Your task to perform on an android device: Check the weather Image 0: 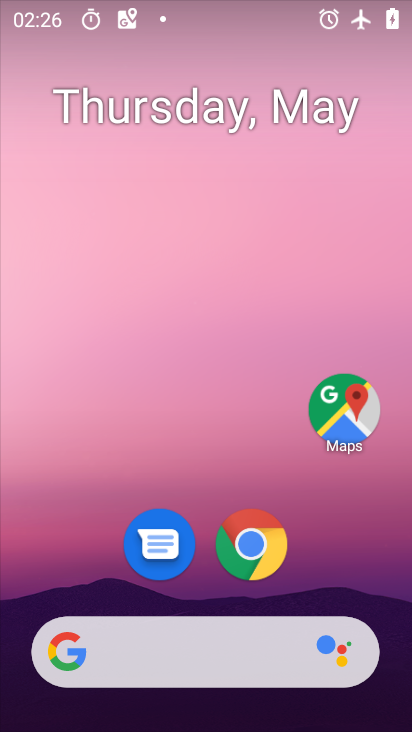
Step 0: click (230, 654)
Your task to perform on an android device: Check the weather Image 1: 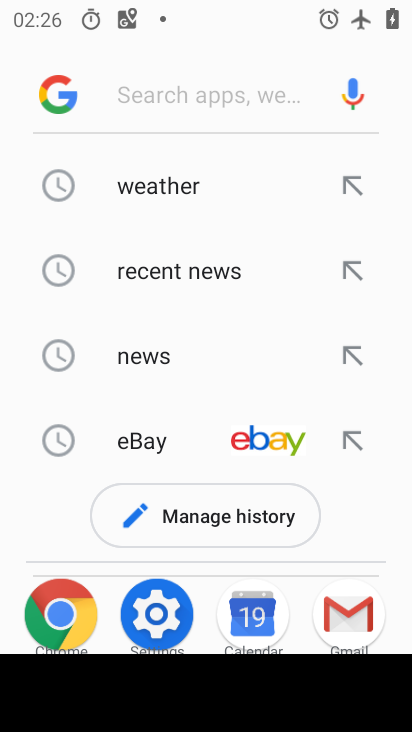
Step 1: click (205, 213)
Your task to perform on an android device: Check the weather Image 2: 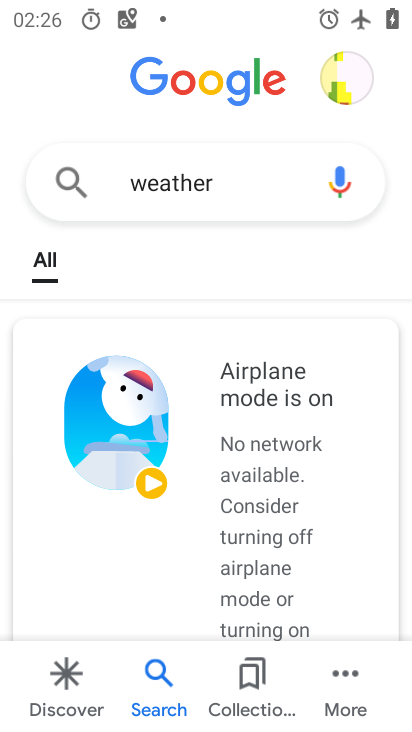
Step 2: task complete